Your task to perform on an android device: toggle sleep mode Image 0: 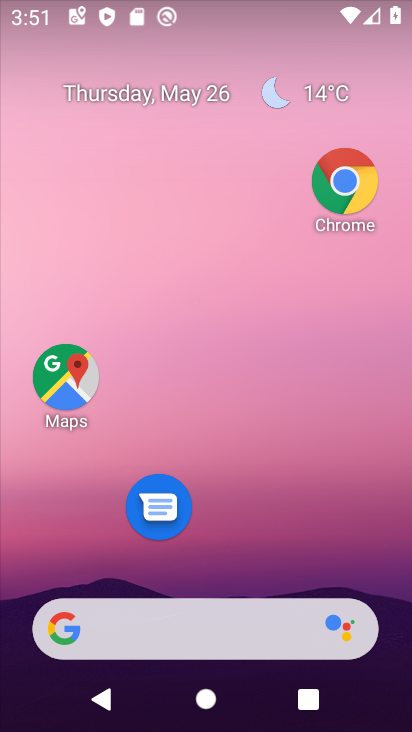
Step 0: drag from (197, 1) to (249, 62)
Your task to perform on an android device: toggle sleep mode Image 1: 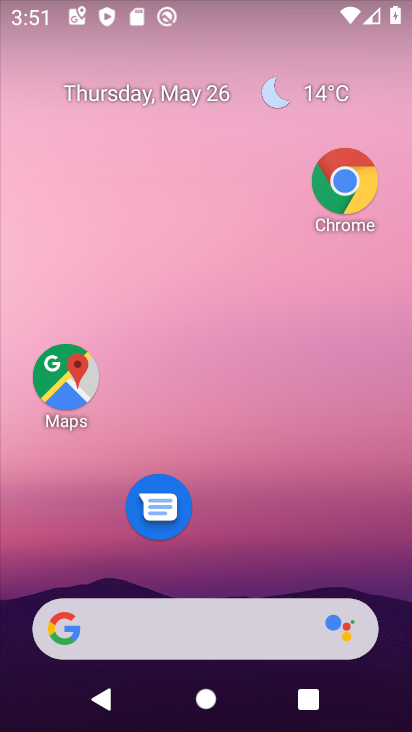
Step 1: drag from (294, 502) to (319, 55)
Your task to perform on an android device: toggle sleep mode Image 2: 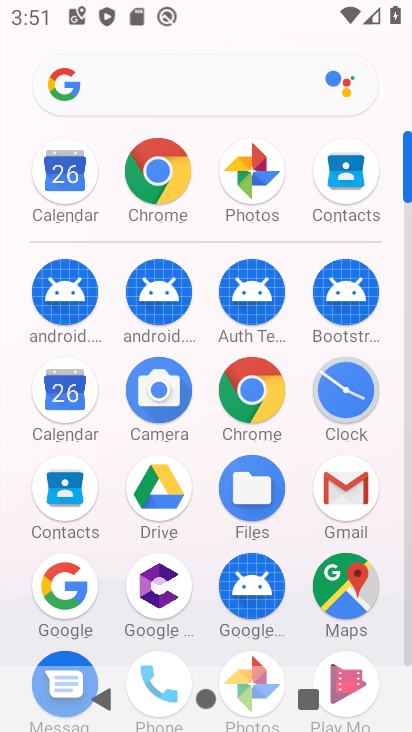
Step 2: drag from (205, 435) to (225, 70)
Your task to perform on an android device: toggle sleep mode Image 3: 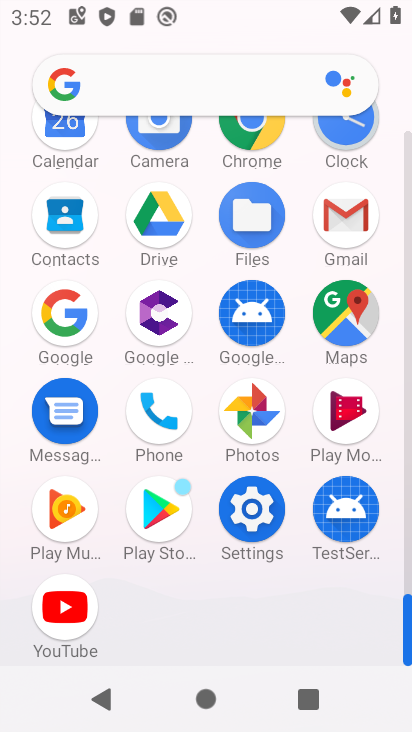
Step 3: click (248, 503)
Your task to perform on an android device: toggle sleep mode Image 4: 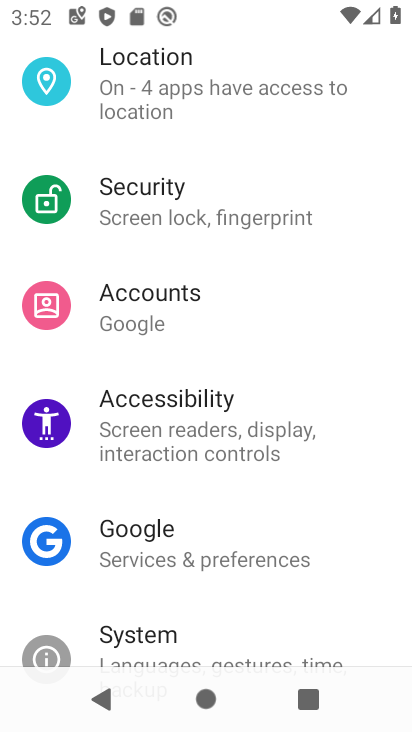
Step 4: drag from (295, 153) to (234, 528)
Your task to perform on an android device: toggle sleep mode Image 5: 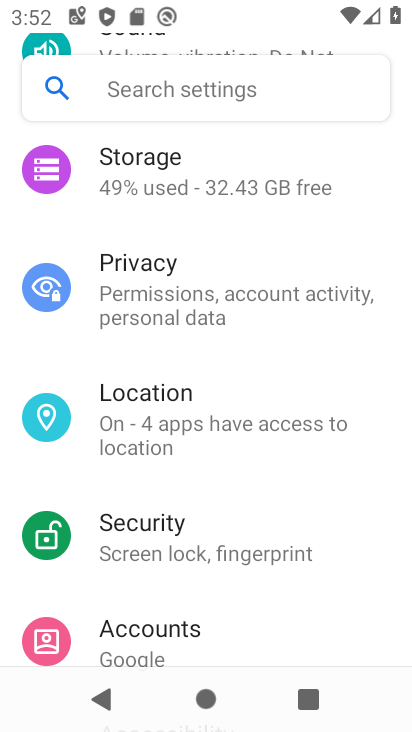
Step 5: drag from (225, 147) to (171, 597)
Your task to perform on an android device: toggle sleep mode Image 6: 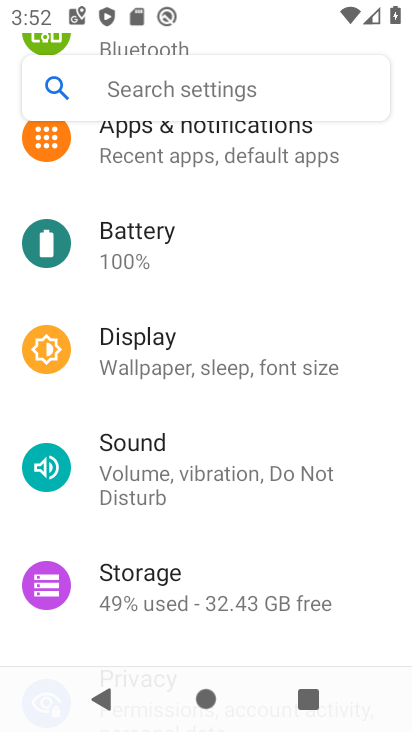
Step 6: click (174, 361)
Your task to perform on an android device: toggle sleep mode Image 7: 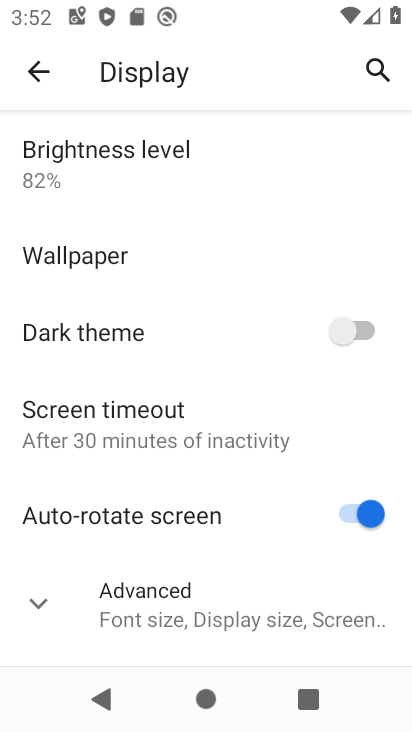
Step 7: click (150, 430)
Your task to perform on an android device: toggle sleep mode Image 8: 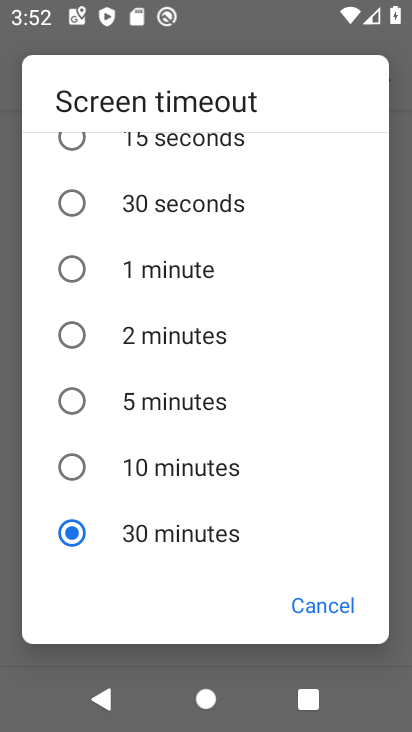
Step 8: click (152, 466)
Your task to perform on an android device: toggle sleep mode Image 9: 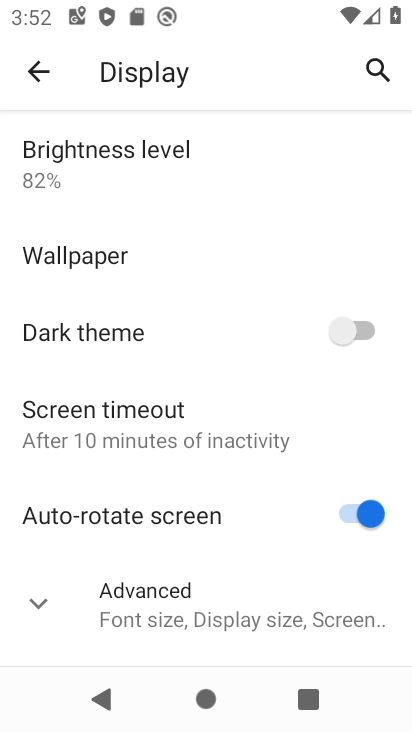
Step 9: task complete